Your task to perform on an android device: Open Google Maps and go to "Timeline" Image 0: 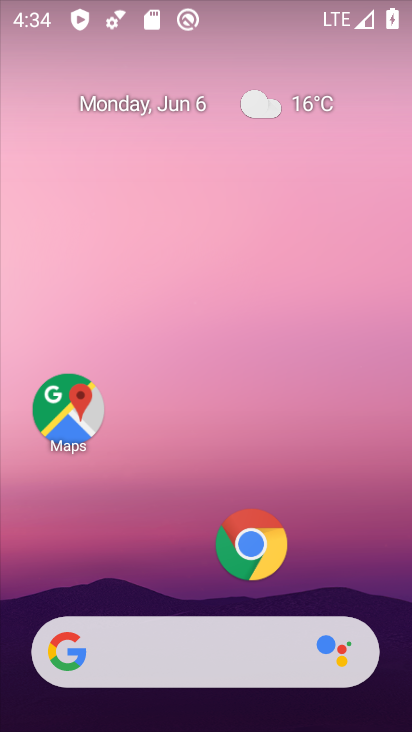
Step 0: press home button
Your task to perform on an android device: Open Google Maps and go to "Timeline" Image 1: 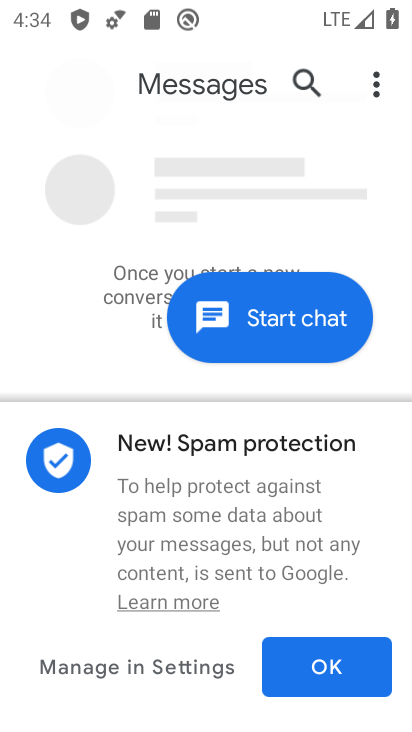
Step 1: drag from (208, 337) to (240, 11)
Your task to perform on an android device: Open Google Maps and go to "Timeline" Image 2: 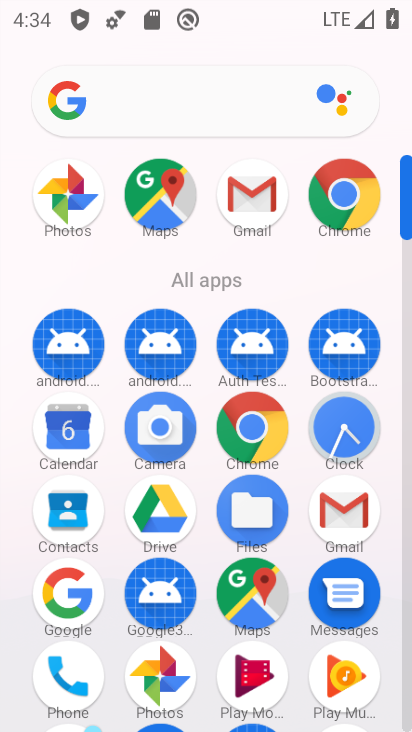
Step 2: click (245, 593)
Your task to perform on an android device: Open Google Maps and go to "Timeline" Image 3: 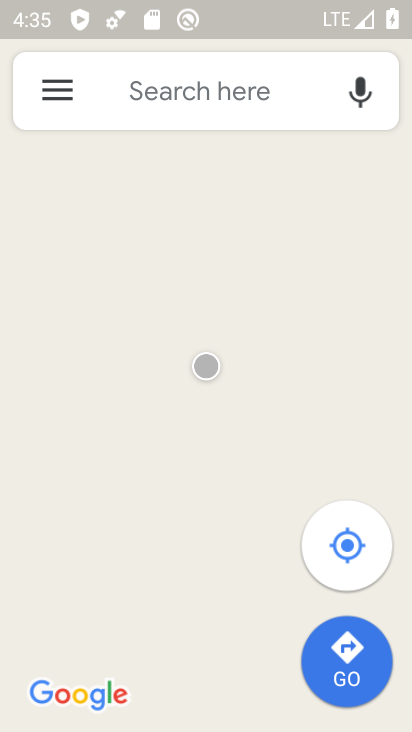
Step 3: click (59, 89)
Your task to perform on an android device: Open Google Maps and go to "Timeline" Image 4: 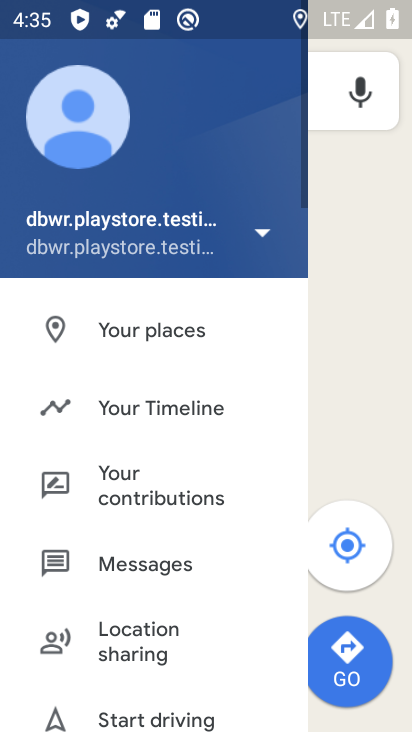
Step 4: click (152, 392)
Your task to perform on an android device: Open Google Maps and go to "Timeline" Image 5: 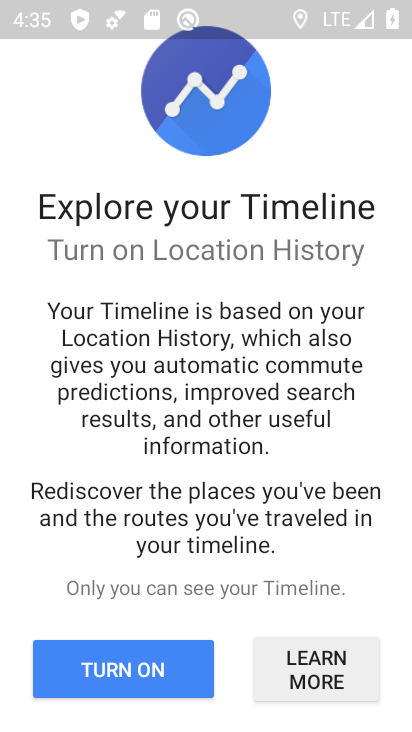
Step 5: click (128, 669)
Your task to perform on an android device: Open Google Maps and go to "Timeline" Image 6: 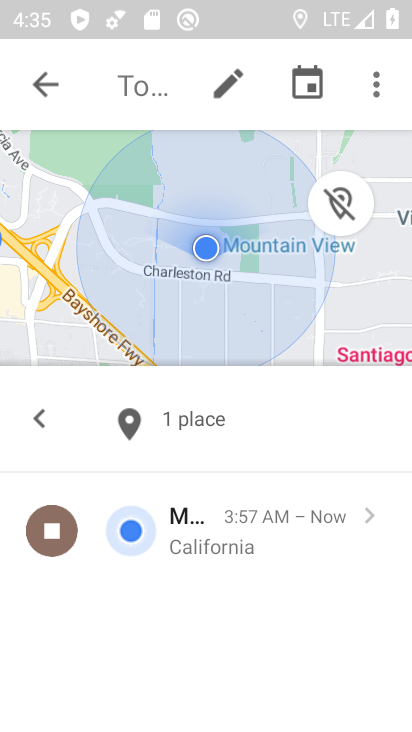
Step 6: task complete